Your task to perform on an android device: move a message to another label in the gmail app Image 0: 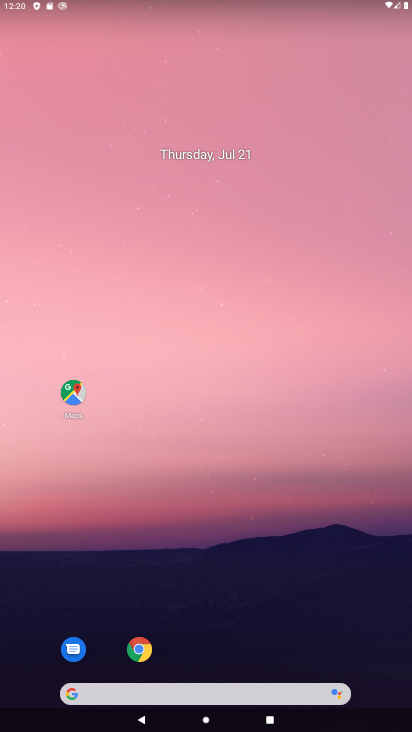
Step 0: drag from (198, 666) to (139, 226)
Your task to perform on an android device: move a message to another label in the gmail app Image 1: 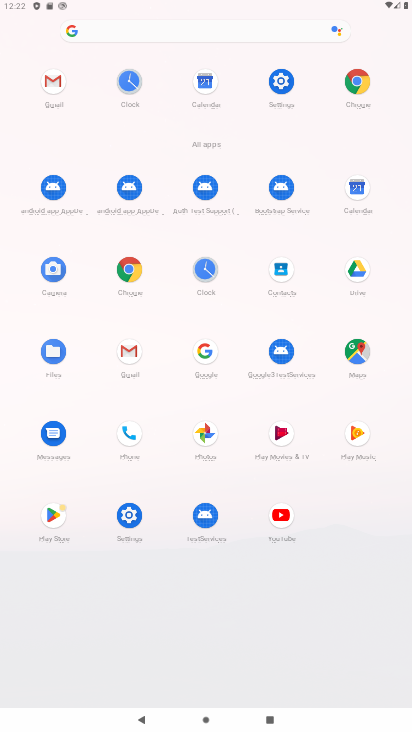
Step 1: click (131, 355)
Your task to perform on an android device: move a message to another label in the gmail app Image 2: 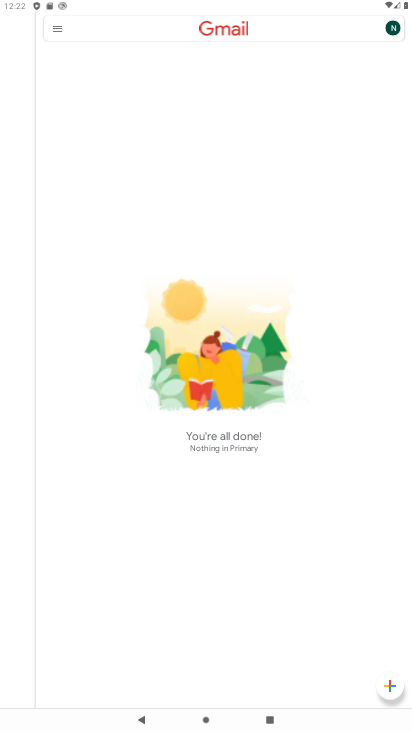
Step 2: task complete